Your task to perform on an android device: see creations saved in the google photos Image 0: 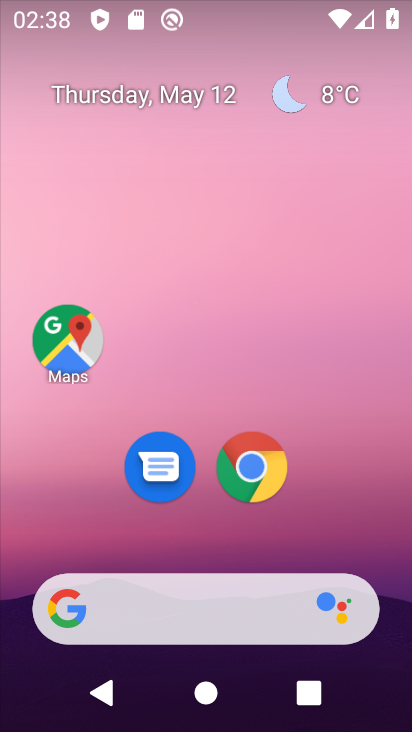
Step 0: drag from (348, 566) to (353, 4)
Your task to perform on an android device: see creations saved in the google photos Image 1: 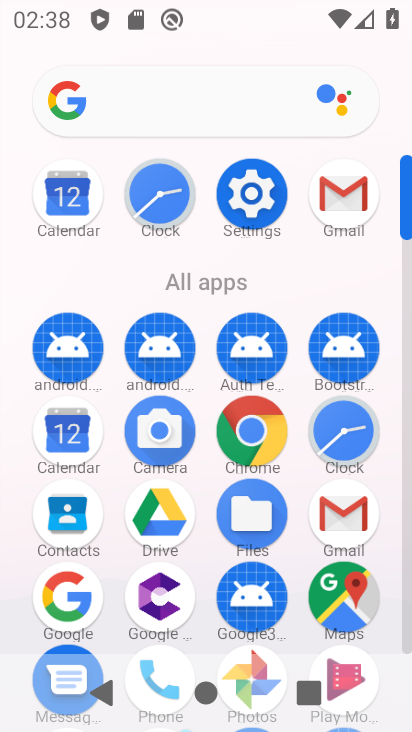
Step 1: drag from (196, 569) to (197, 347)
Your task to perform on an android device: see creations saved in the google photos Image 2: 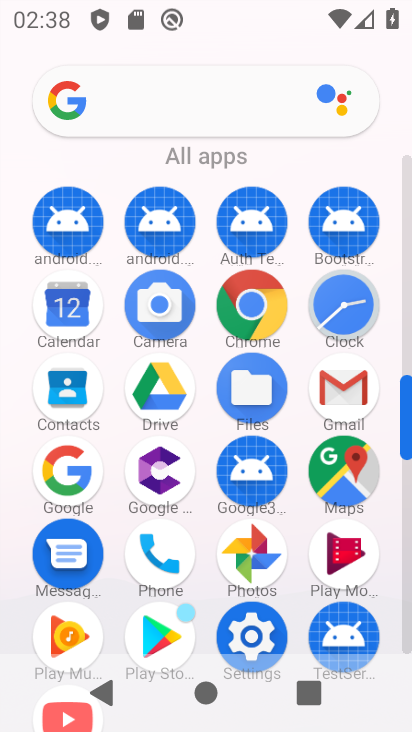
Step 2: click (226, 549)
Your task to perform on an android device: see creations saved in the google photos Image 3: 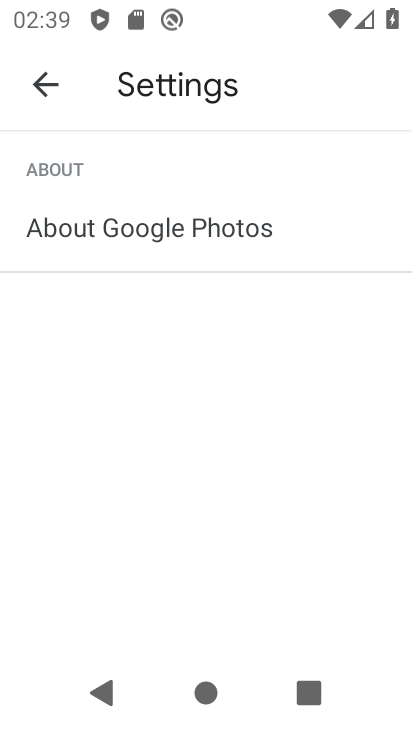
Step 3: click (40, 73)
Your task to perform on an android device: see creations saved in the google photos Image 4: 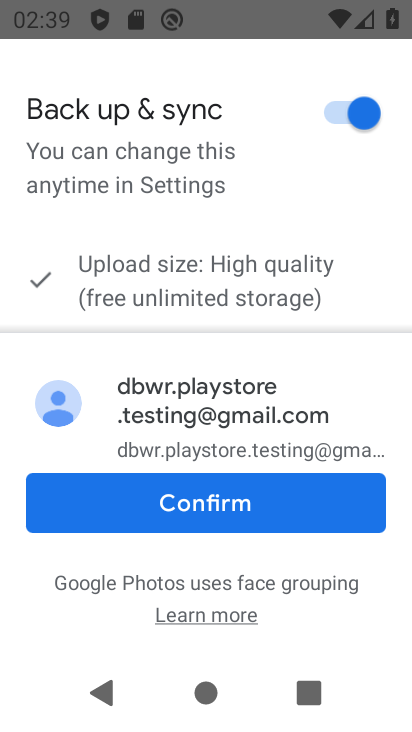
Step 4: click (175, 499)
Your task to perform on an android device: see creations saved in the google photos Image 5: 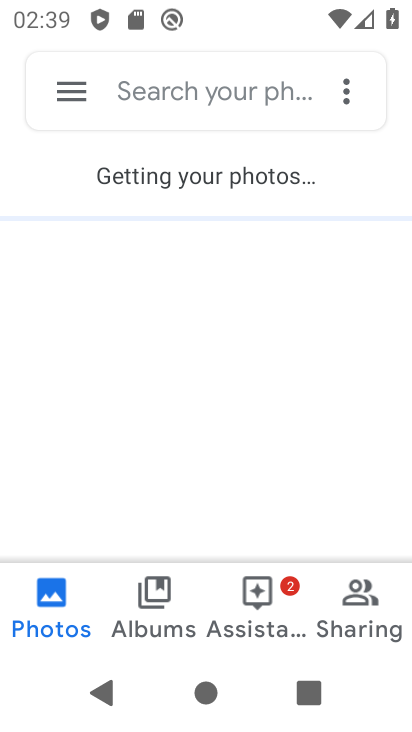
Step 5: click (198, 96)
Your task to perform on an android device: see creations saved in the google photos Image 6: 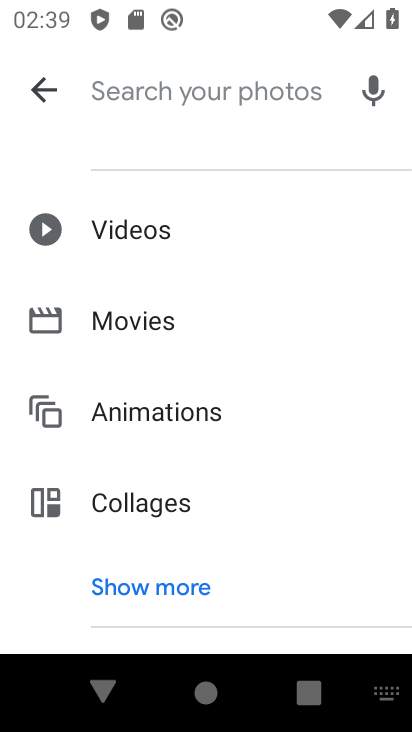
Step 6: click (175, 585)
Your task to perform on an android device: see creations saved in the google photos Image 7: 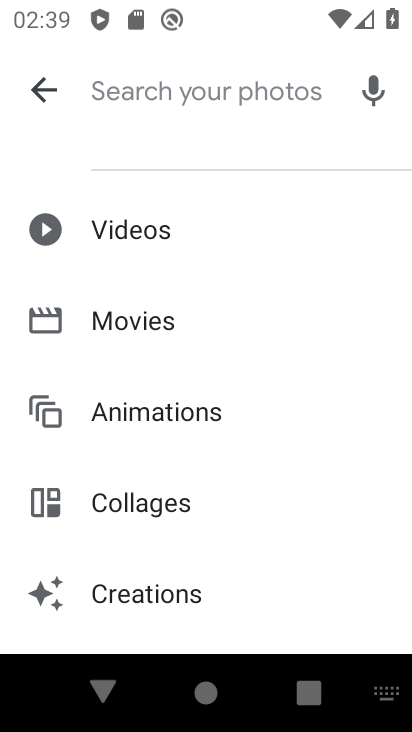
Step 7: drag from (180, 568) to (169, 261)
Your task to perform on an android device: see creations saved in the google photos Image 8: 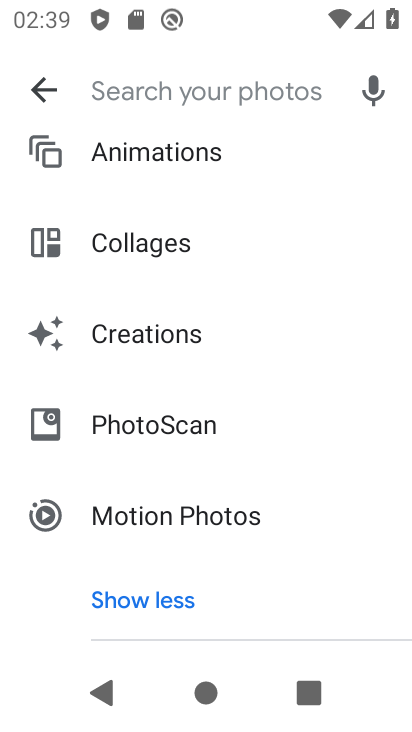
Step 8: click (161, 328)
Your task to perform on an android device: see creations saved in the google photos Image 9: 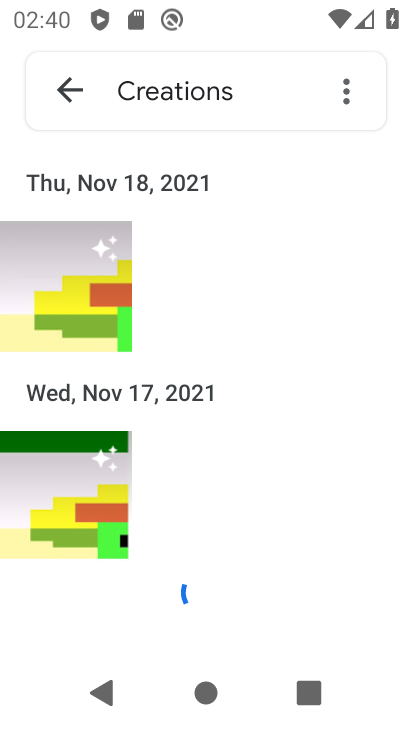
Step 9: task complete